Your task to perform on an android device: Open Google Chrome and open the bookmarks view Image 0: 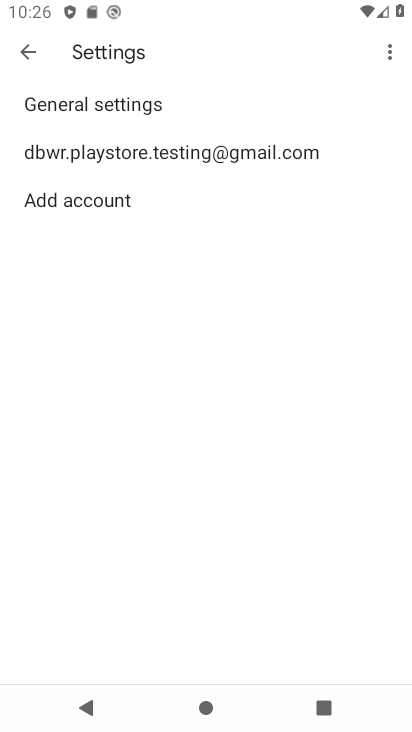
Step 0: press home button
Your task to perform on an android device: Open Google Chrome and open the bookmarks view Image 1: 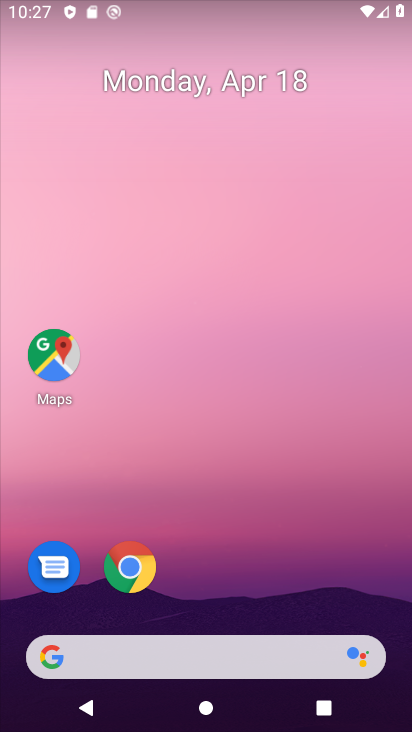
Step 1: click (119, 561)
Your task to perform on an android device: Open Google Chrome and open the bookmarks view Image 2: 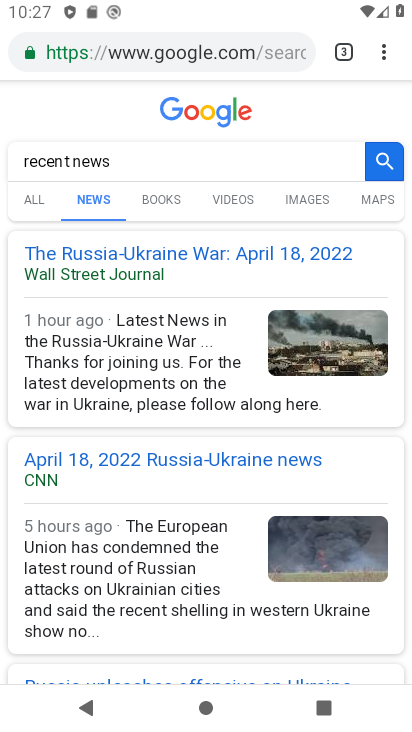
Step 2: click (383, 48)
Your task to perform on an android device: Open Google Chrome and open the bookmarks view Image 3: 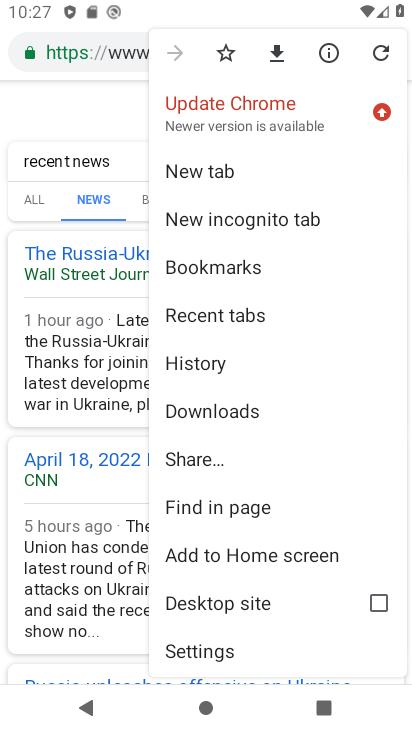
Step 3: click (217, 262)
Your task to perform on an android device: Open Google Chrome and open the bookmarks view Image 4: 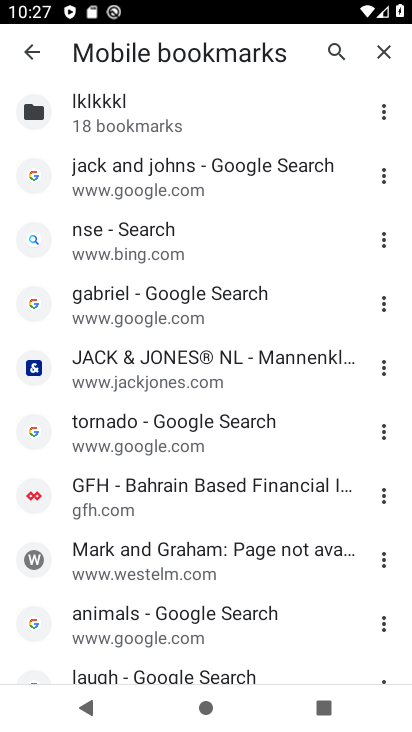
Step 4: task complete